Your task to perform on an android device: add a contact in the contacts app Image 0: 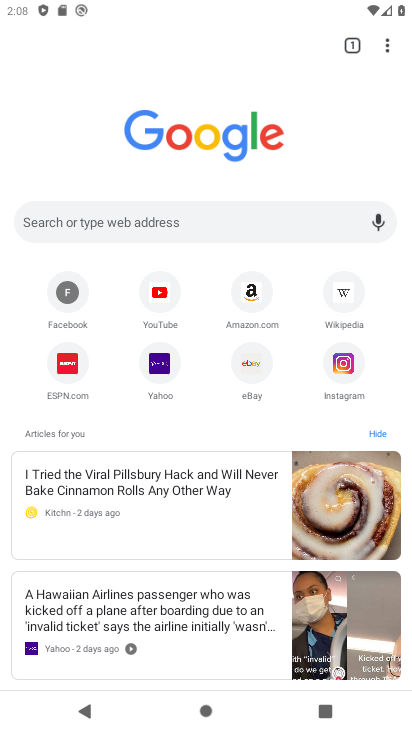
Step 0: press home button
Your task to perform on an android device: add a contact in the contacts app Image 1: 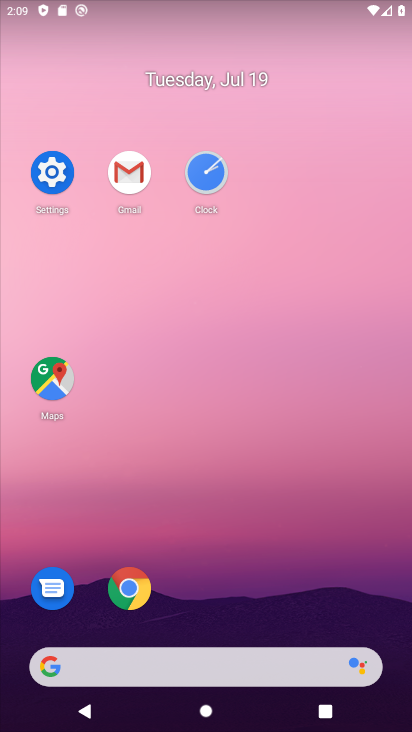
Step 1: drag from (252, 609) to (290, 142)
Your task to perform on an android device: add a contact in the contacts app Image 2: 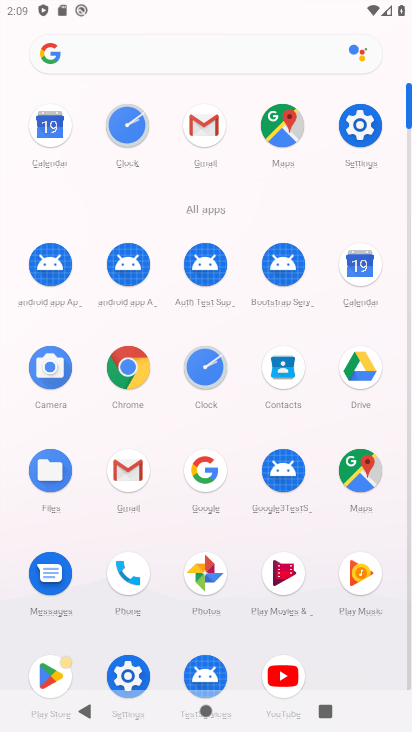
Step 2: drag from (285, 368) to (158, 279)
Your task to perform on an android device: add a contact in the contacts app Image 3: 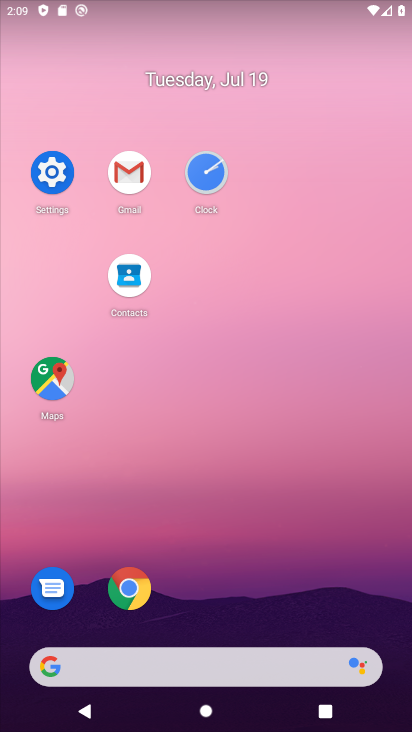
Step 3: click (130, 280)
Your task to perform on an android device: add a contact in the contacts app Image 4: 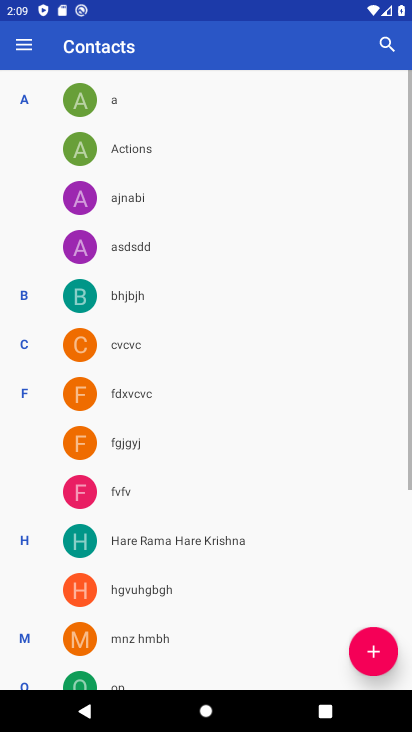
Step 4: click (370, 650)
Your task to perform on an android device: add a contact in the contacts app Image 5: 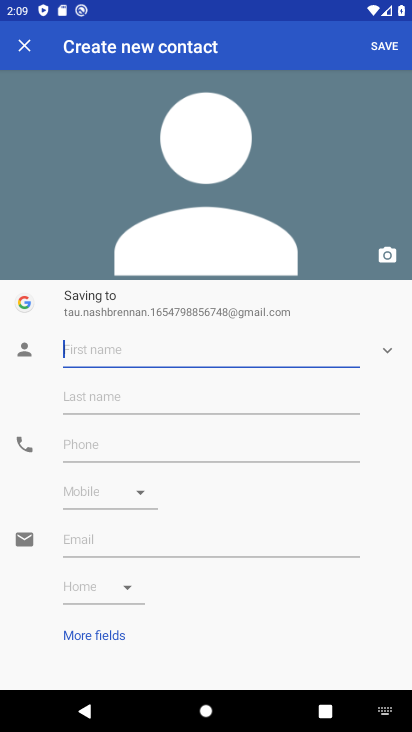
Step 5: type "aasss"
Your task to perform on an android device: add a contact in the contacts app Image 6: 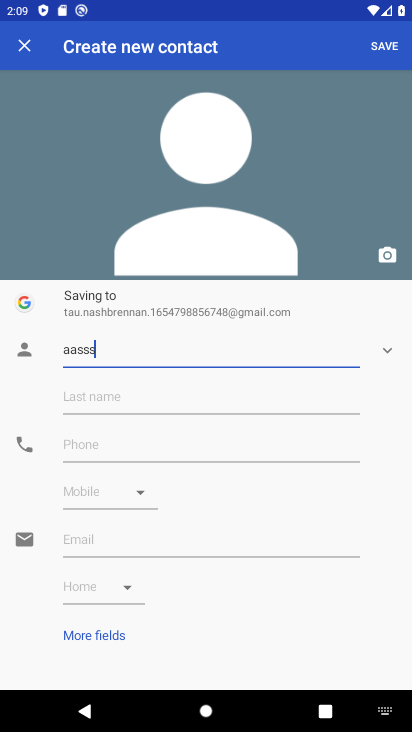
Step 6: click (165, 445)
Your task to perform on an android device: add a contact in the contacts app Image 7: 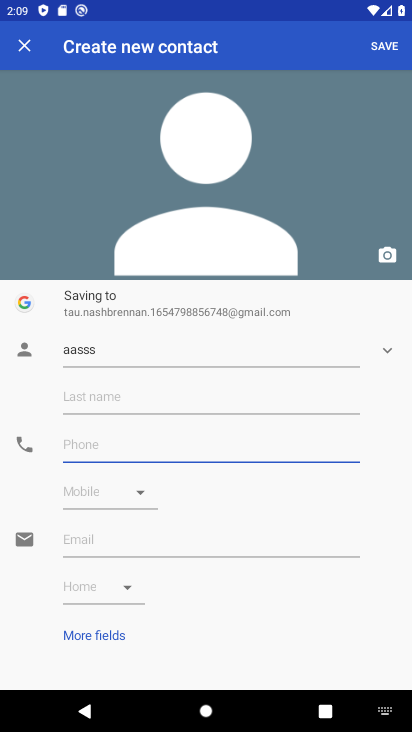
Step 7: type "2233223345"
Your task to perform on an android device: add a contact in the contacts app Image 8: 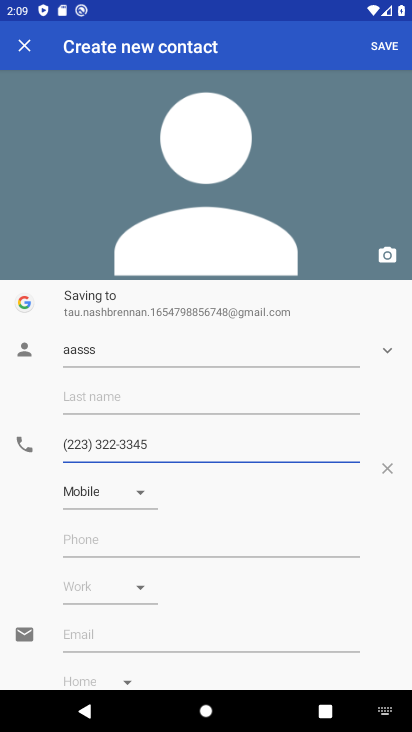
Step 8: click (380, 48)
Your task to perform on an android device: add a contact in the contacts app Image 9: 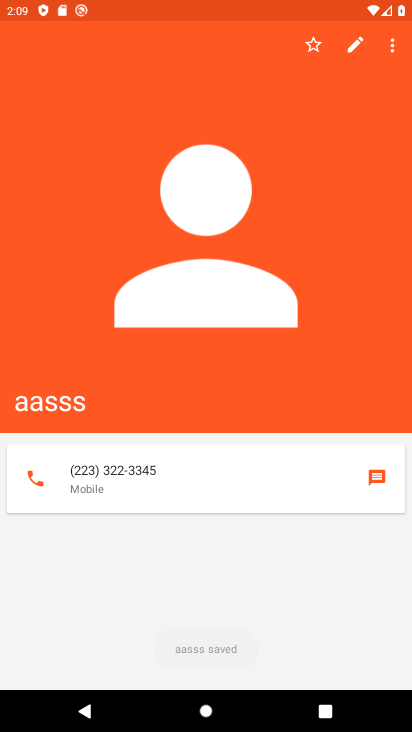
Step 9: task complete